Your task to perform on an android device: open chrome and create a bookmark for the current page Image 0: 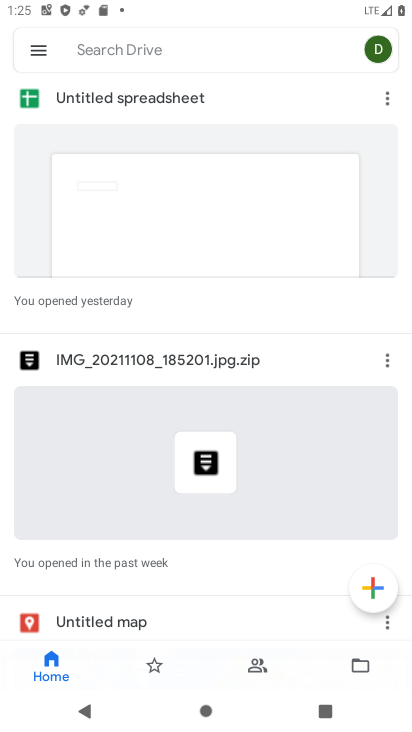
Step 0: press home button
Your task to perform on an android device: open chrome and create a bookmark for the current page Image 1: 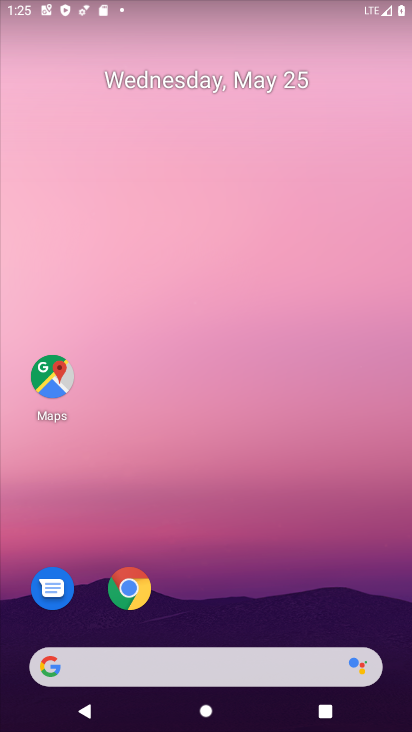
Step 1: click (129, 597)
Your task to perform on an android device: open chrome and create a bookmark for the current page Image 2: 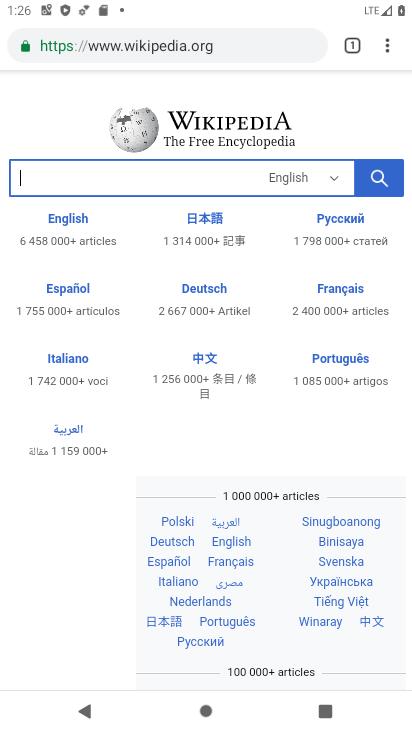
Step 2: click (388, 46)
Your task to perform on an android device: open chrome and create a bookmark for the current page Image 3: 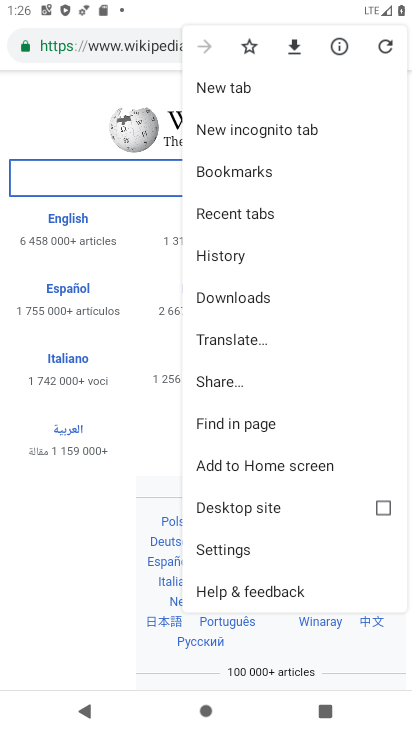
Step 3: click (248, 46)
Your task to perform on an android device: open chrome and create a bookmark for the current page Image 4: 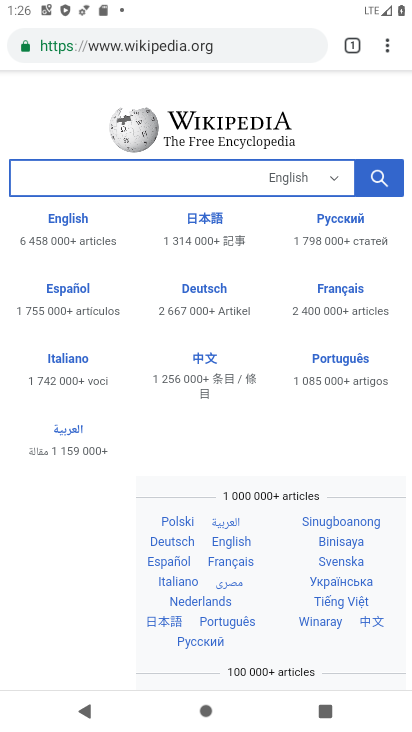
Step 4: task complete